Your task to perform on an android device: find which apps use the phone's location Image 0: 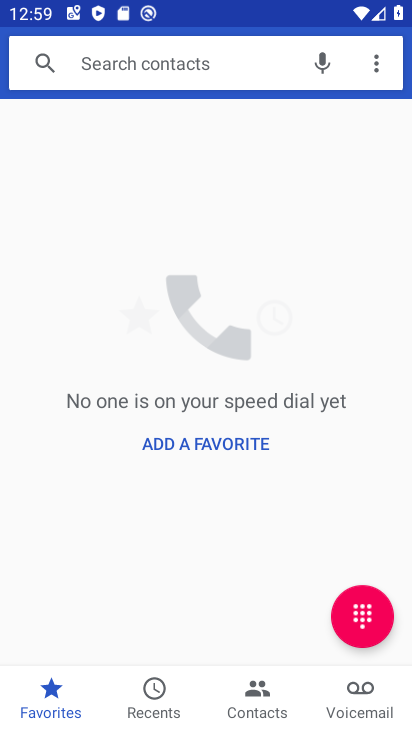
Step 0: press back button
Your task to perform on an android device: find which apps use the phone's location Image 1: 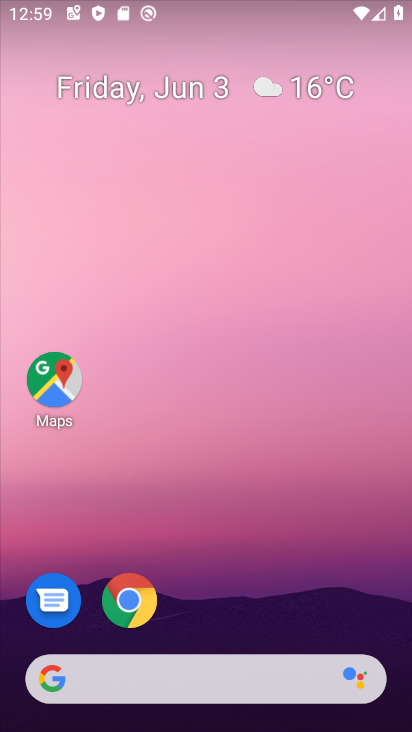
Step 1: drag from (246, 543) to (188, 18)
Your task to perform on an android device: find which apps use the phone's location Image 2: 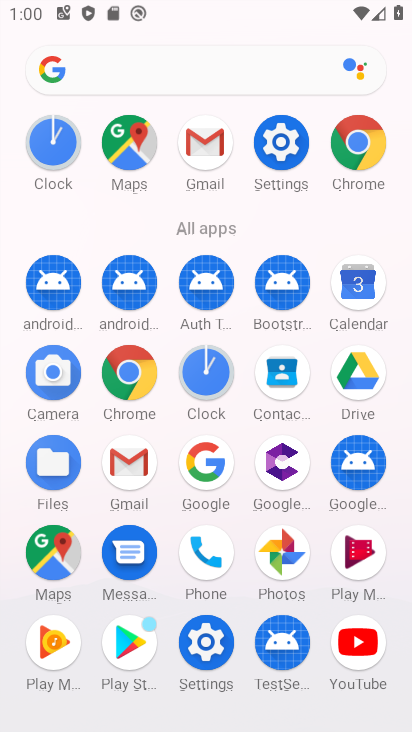
Step 2: click (204, 641)
Your task to perform on an android device: find which apps use the phone's location Image 3: 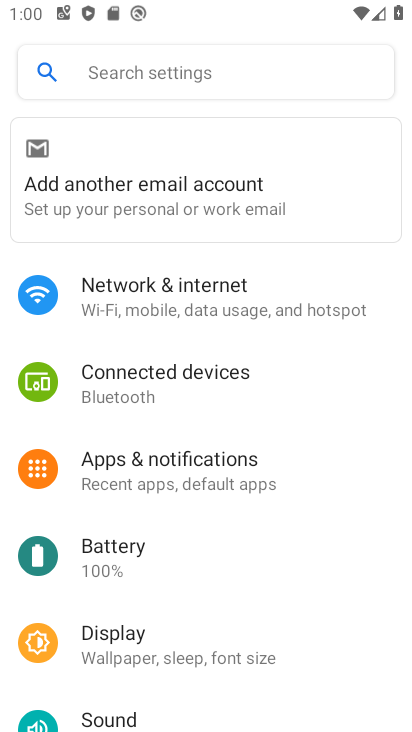
Step 3: drag from (222, 644) to (222, 171)
Your task to perform on an android device: find which apps use the phone's location Image 4: 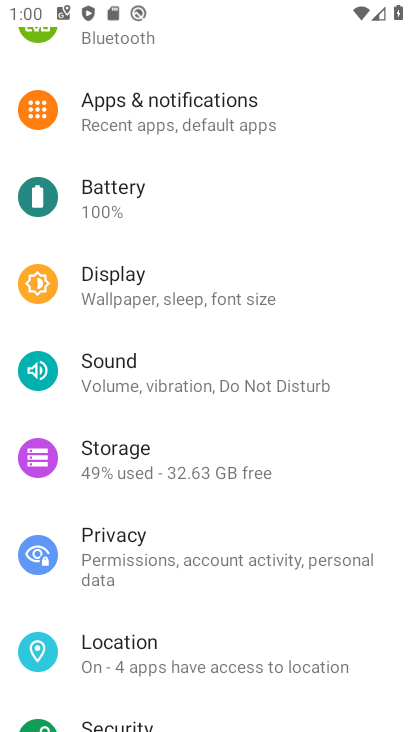
Step 4: click (163, 640)
Your task to perform on an android device: find which apps use the phone's location Image 5: 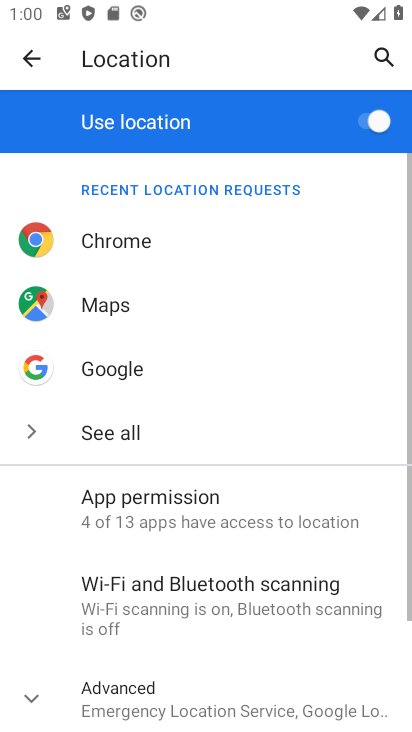
Step 5: click (161, 513)
Your task to perform on an android device: find which apps use the phone's location Image 6: 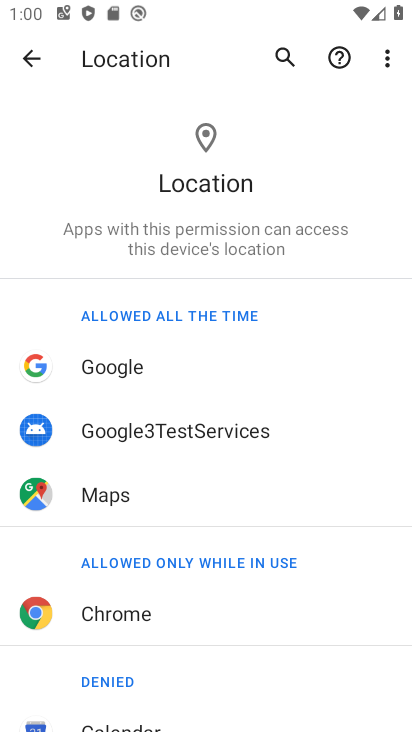
Step 6: task complete